Your task to perform on an android device: Open maps Image 0: 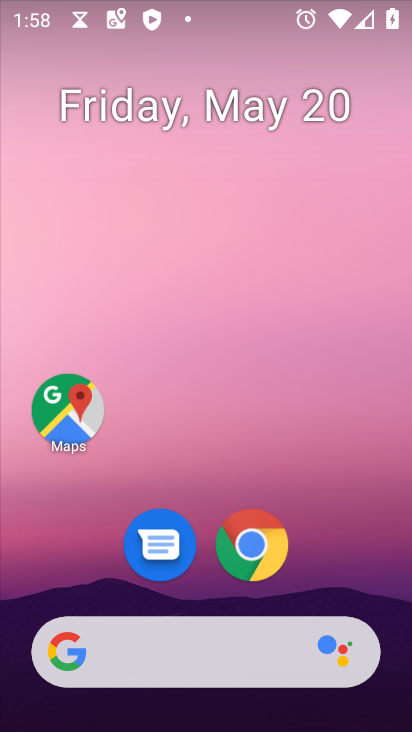
Step 0: click (77, 419)
Your task to perform on an android device: Open maps Image 1: 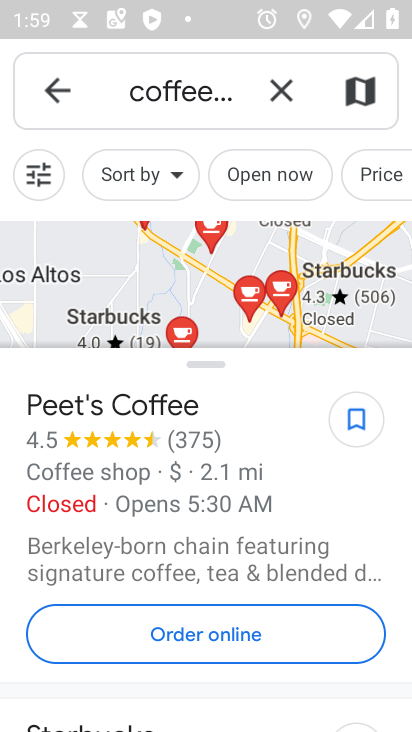
Step 1: task complete